Your task to perform on an android device: search for accent chairs on article.com Image 0: 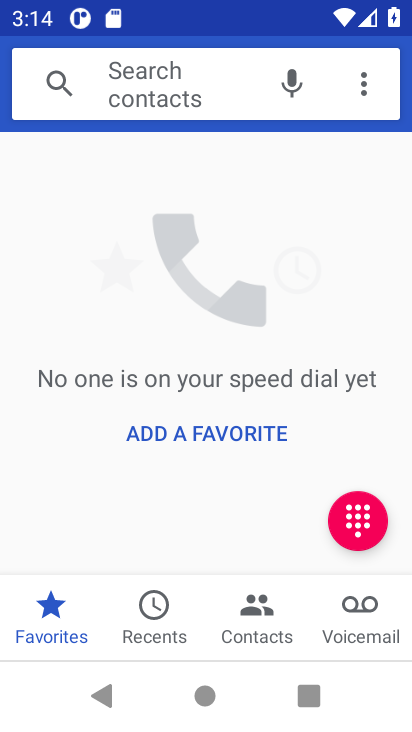
Step 0: press back button
Your task to perform on an android device: search for accent chairs on article.com Image 1: 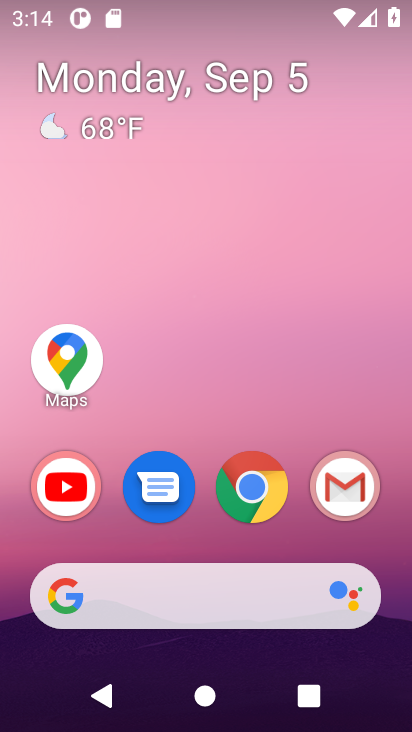
Step 1: click (273, 470)
Your task to perform on an android device: search for accent chairs on article.com Image 2: 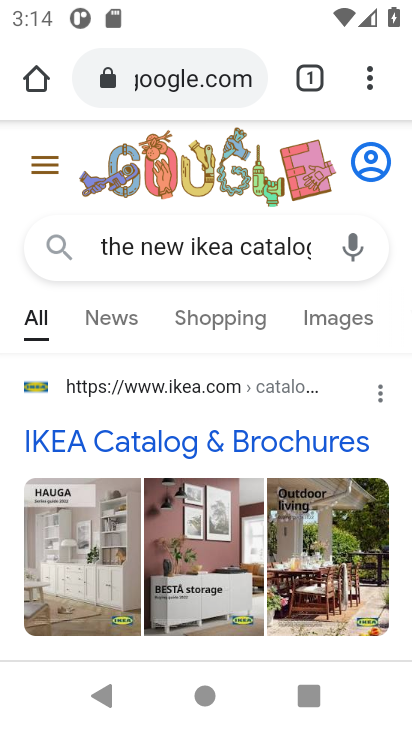
Step 2: click (167, 73)
Your task to perform on an android device: search for accent chairs on article.com Image 3: 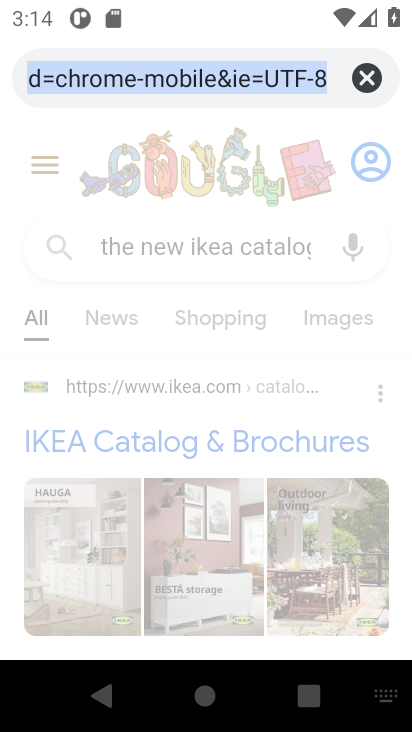
Step 3: click (370, 70)
Your task to perform on an android device: search for accent chairs on article.com Image 4: 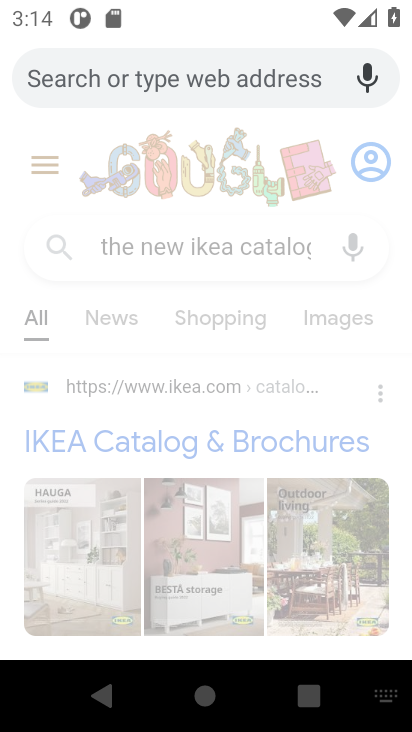
Step 4: type "accent chairs on article.com"
Your task to perform on an android device: search for accent chairs on article.com Image 5: 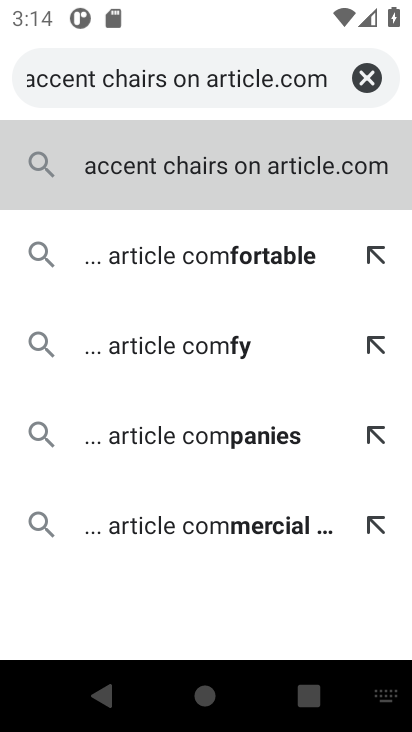
Step 5: click (244, 183)
Your task to perform on an android device: search for accent chairs on article.com Image 6: 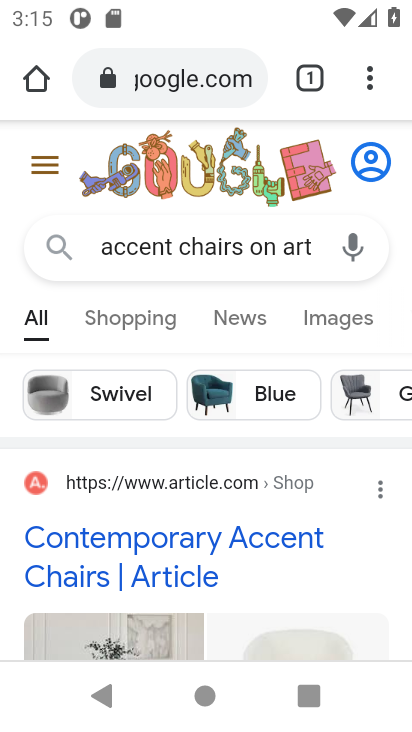
Step 6: task complete